Your task to perform on an android device: uninstall "Chime – Mobile Banking" Image 0: 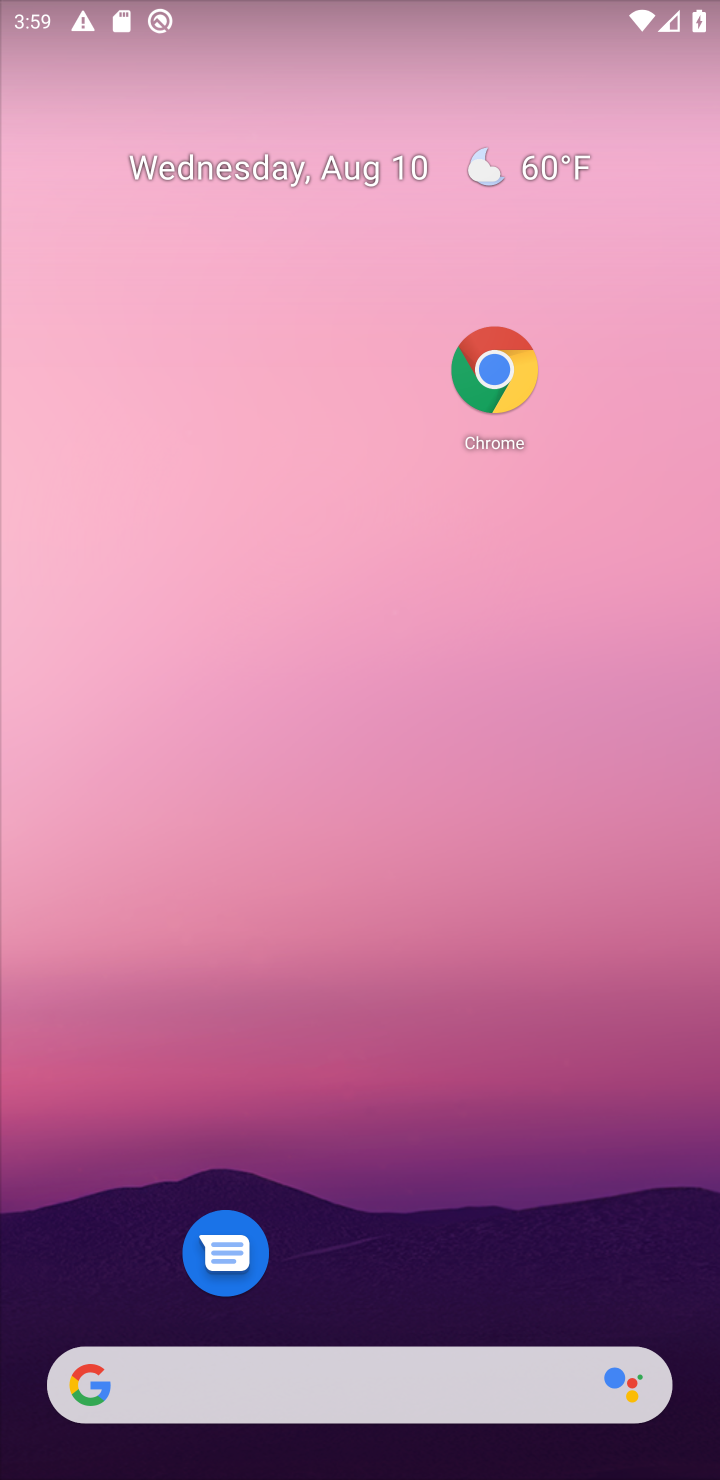
Step 0: drag from (338, 1304) to (396, 361)
Your task to perform on an android device: uninstall "Chime – Mobile Banking" Image 1: 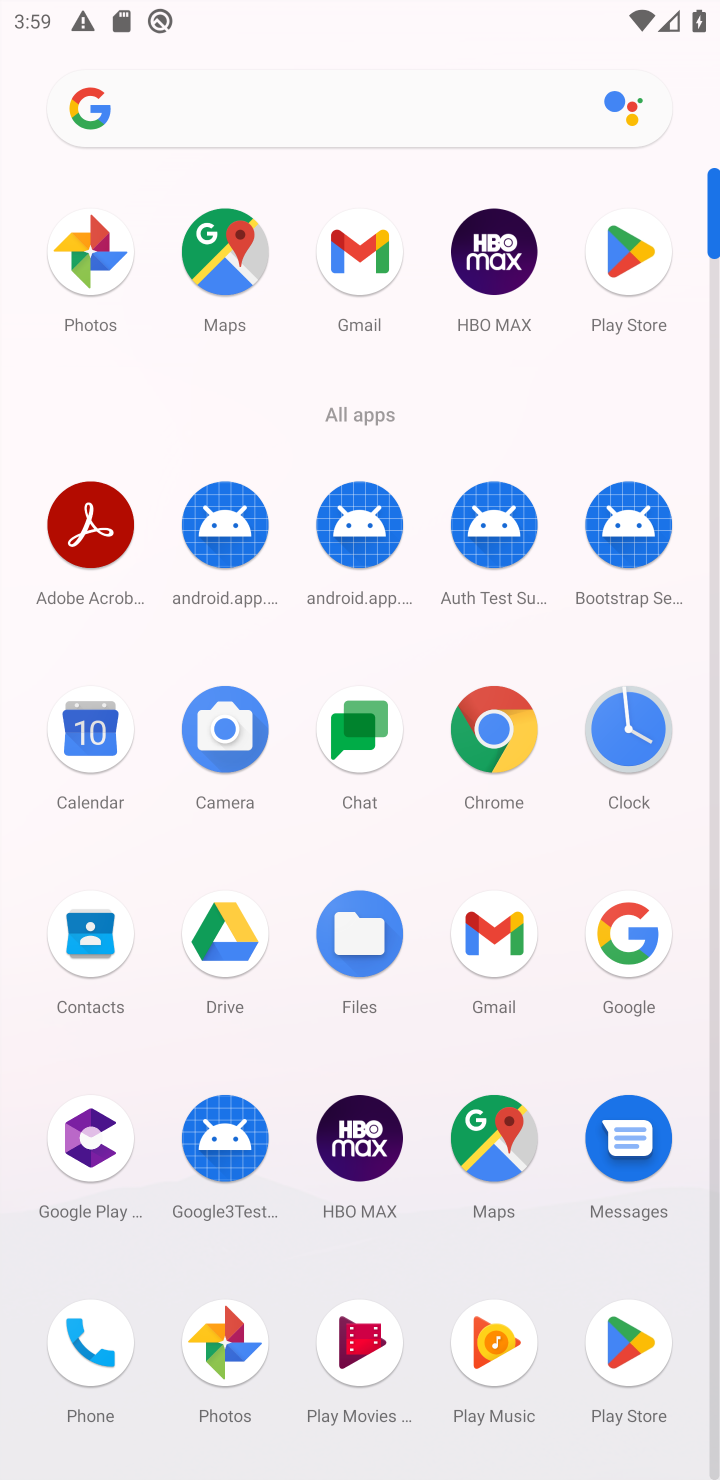
Step 1: click (635, 248)
Your task to perform on an android device: uninstall "Chime – Mobile Banking" Image 2: 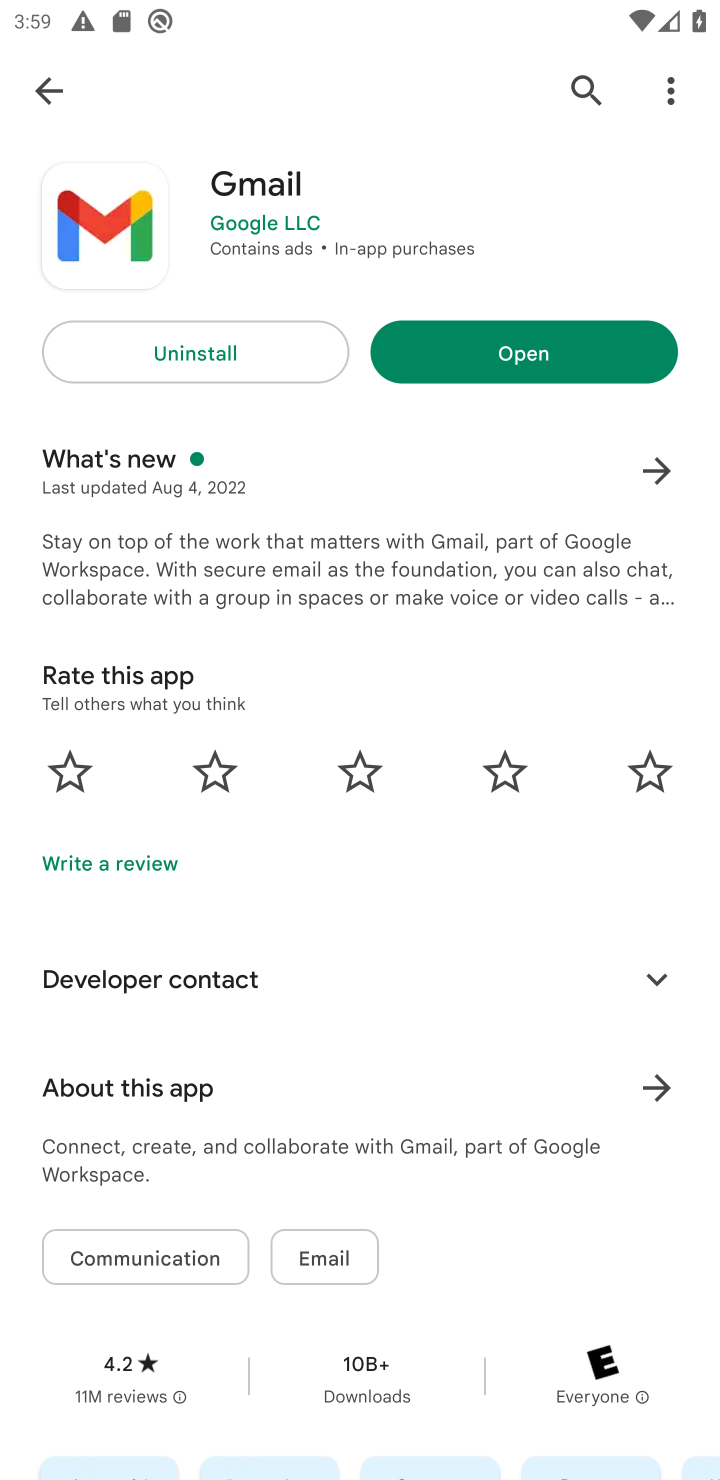
Step 2: click (49, 109)
Your task to perform on an android device: uninstall "Chime – Mobile Banking" Image 3: 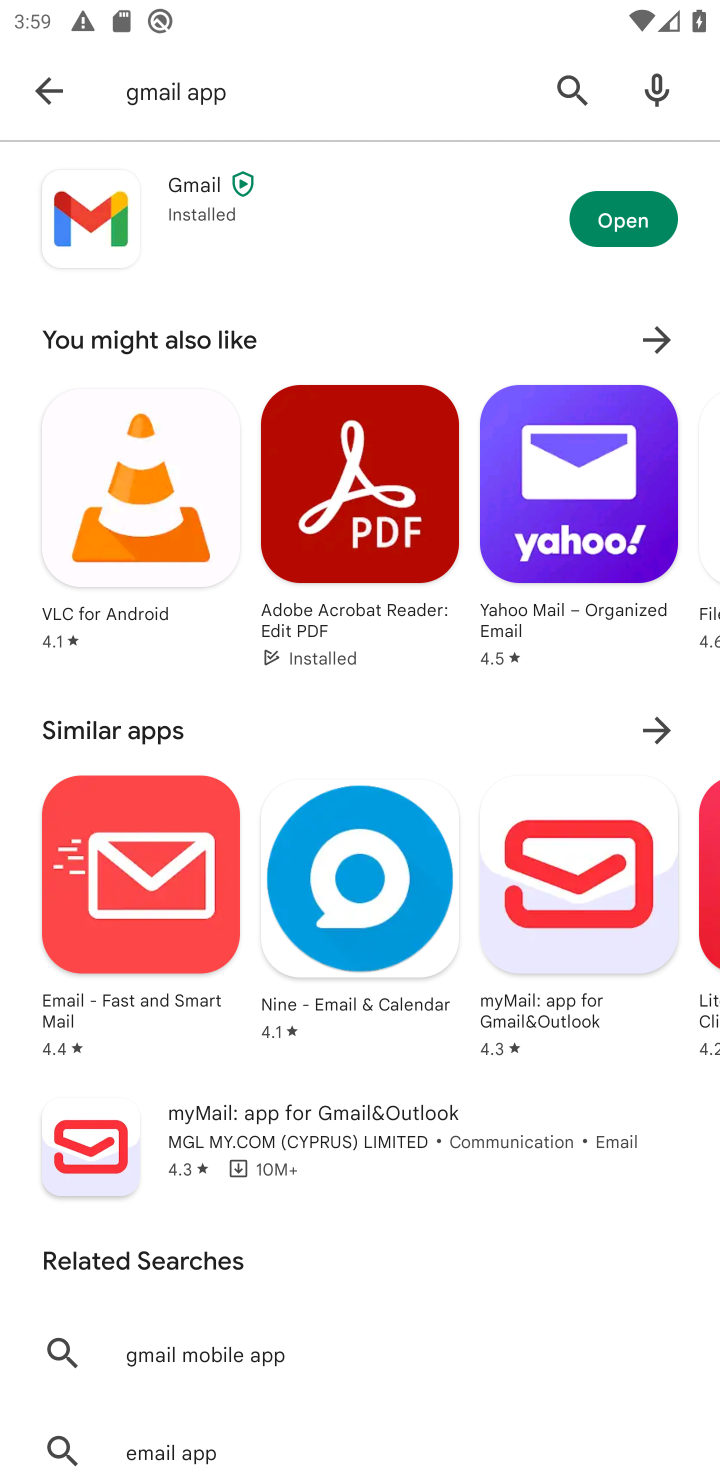
Step 3: click (41, 70)
Your task to perform on an android device: uninstall "Chime – Mobile Banking" Image 4: 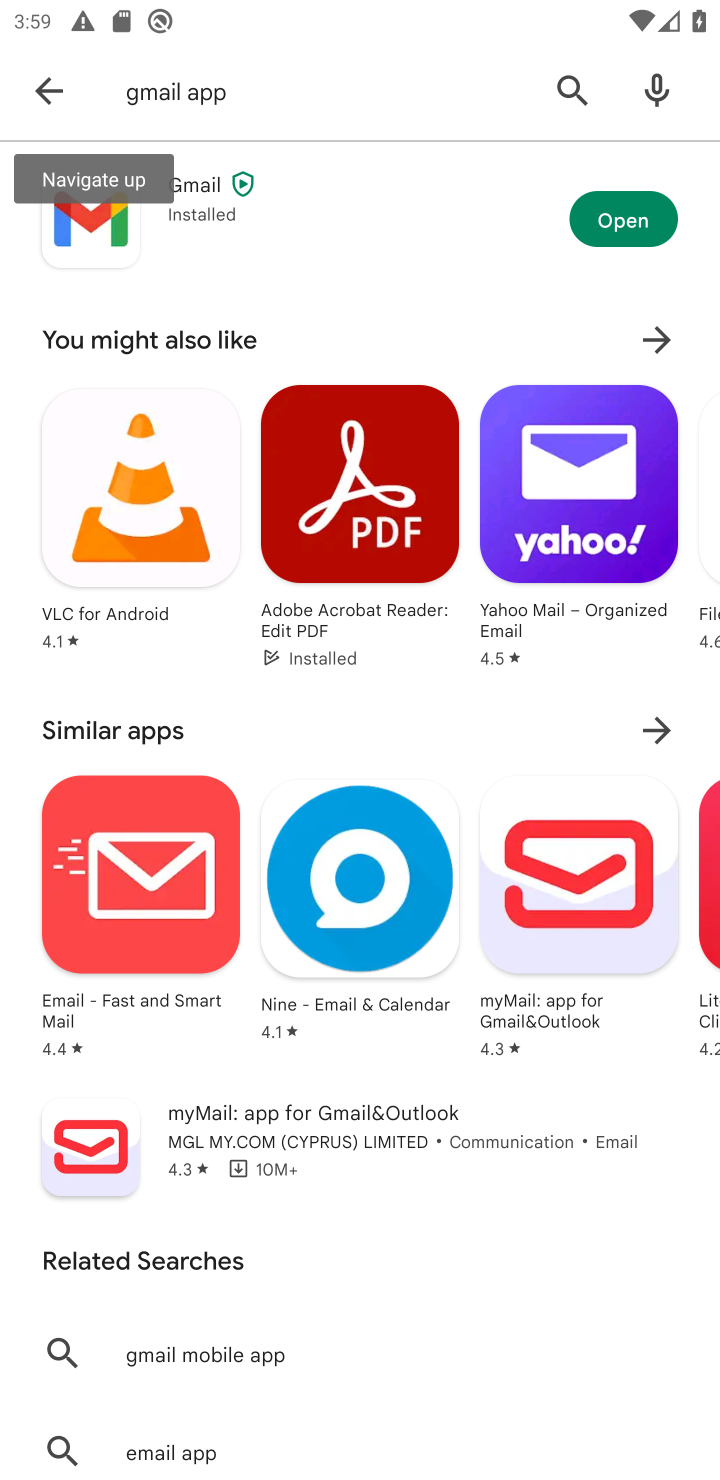
Step 4: click (325, 91)
Your task to perform on an android device: uninstall "Chime – Mobile Banking" Image 5: 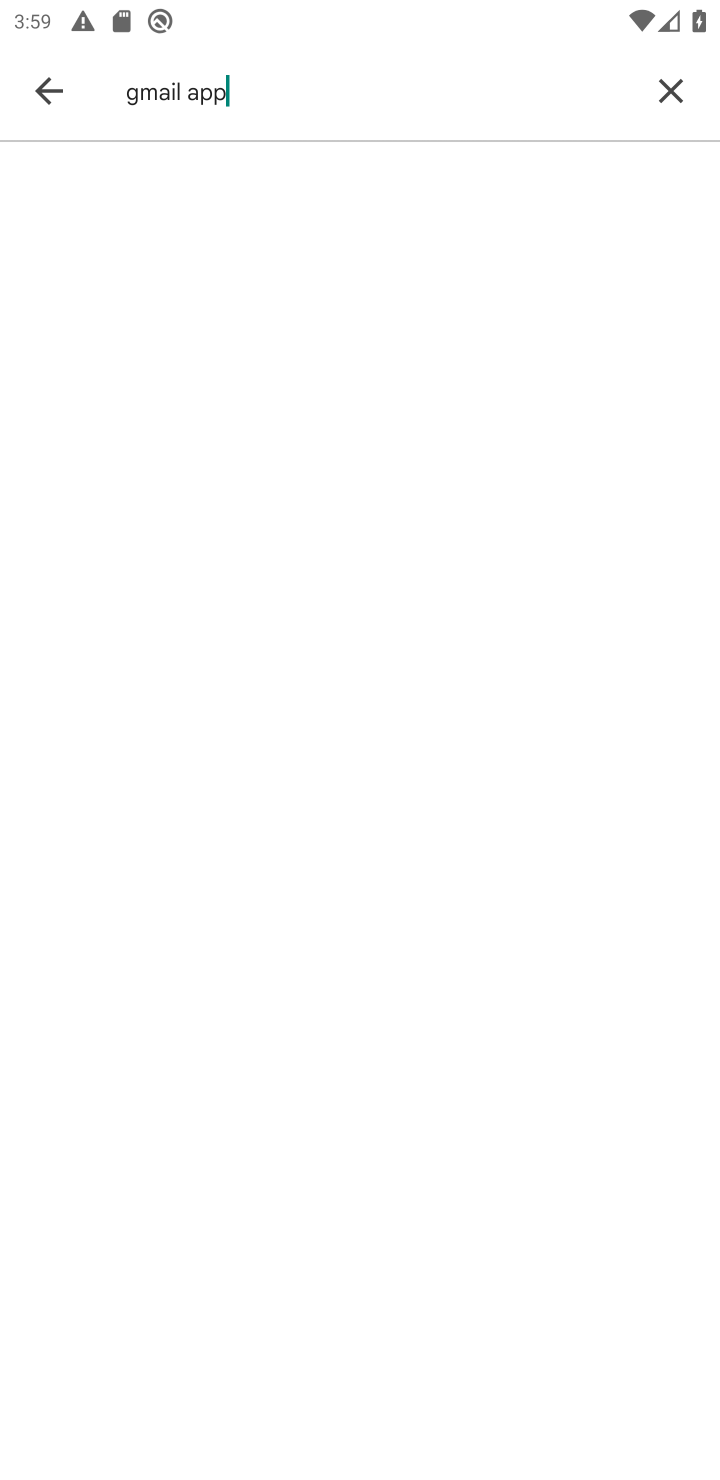
Step 5: click (578, 91)
Your task to perform on an android device: uninstall "Chime – Mobile Banking" Image 6: 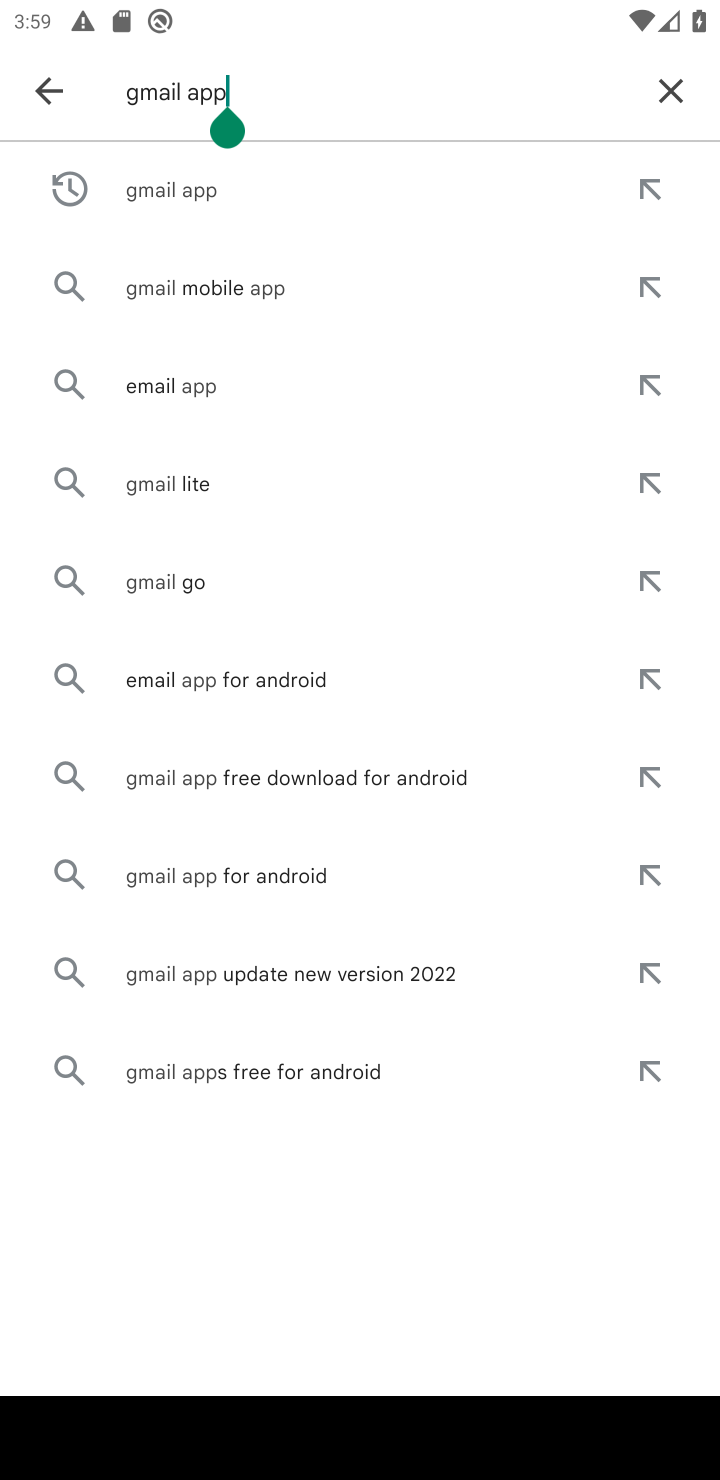
Step 6: click (662, 88)
Your task to perform on an android device: uninstall "Chime – Mobile Banking" Image 7: 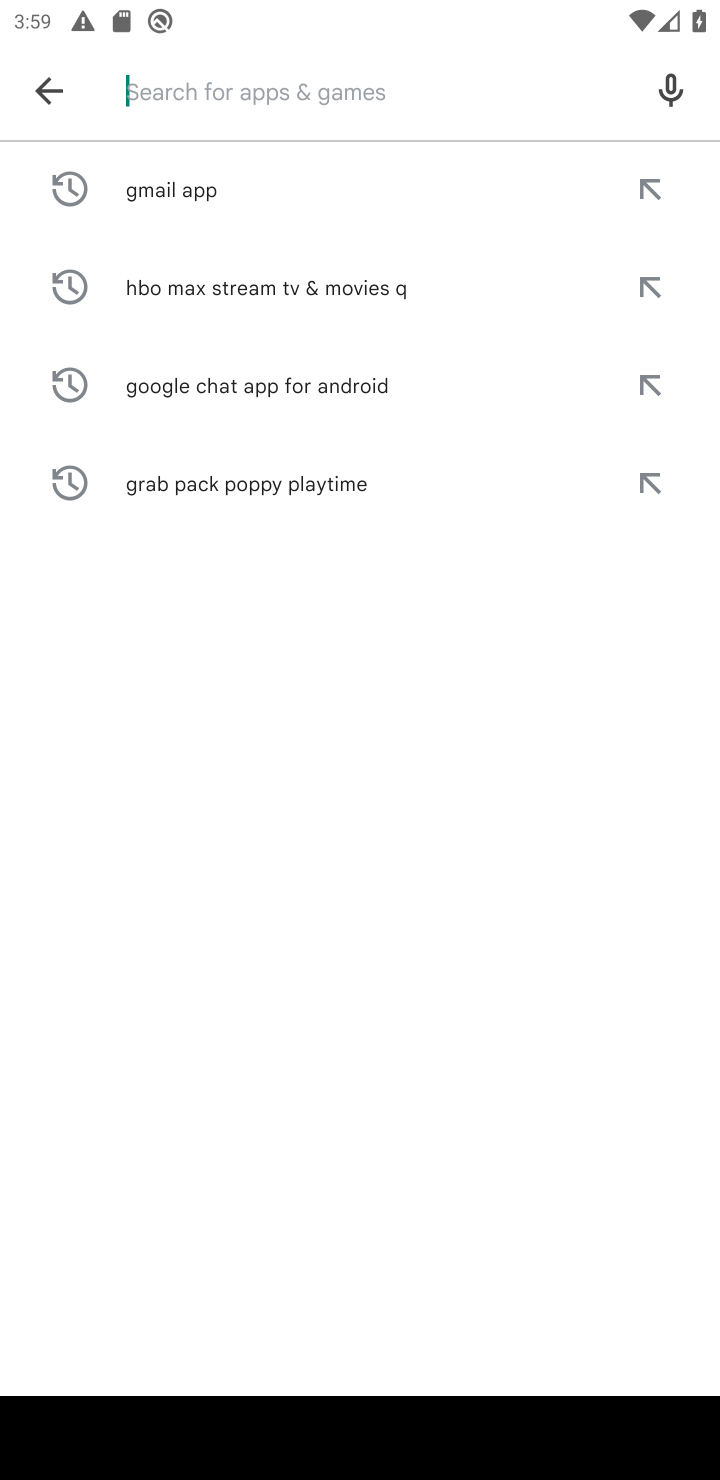
Step 7: click (339, 101)
Your task to perform on an android device: uninstall "Chime – Mobile Banking" Image 8: 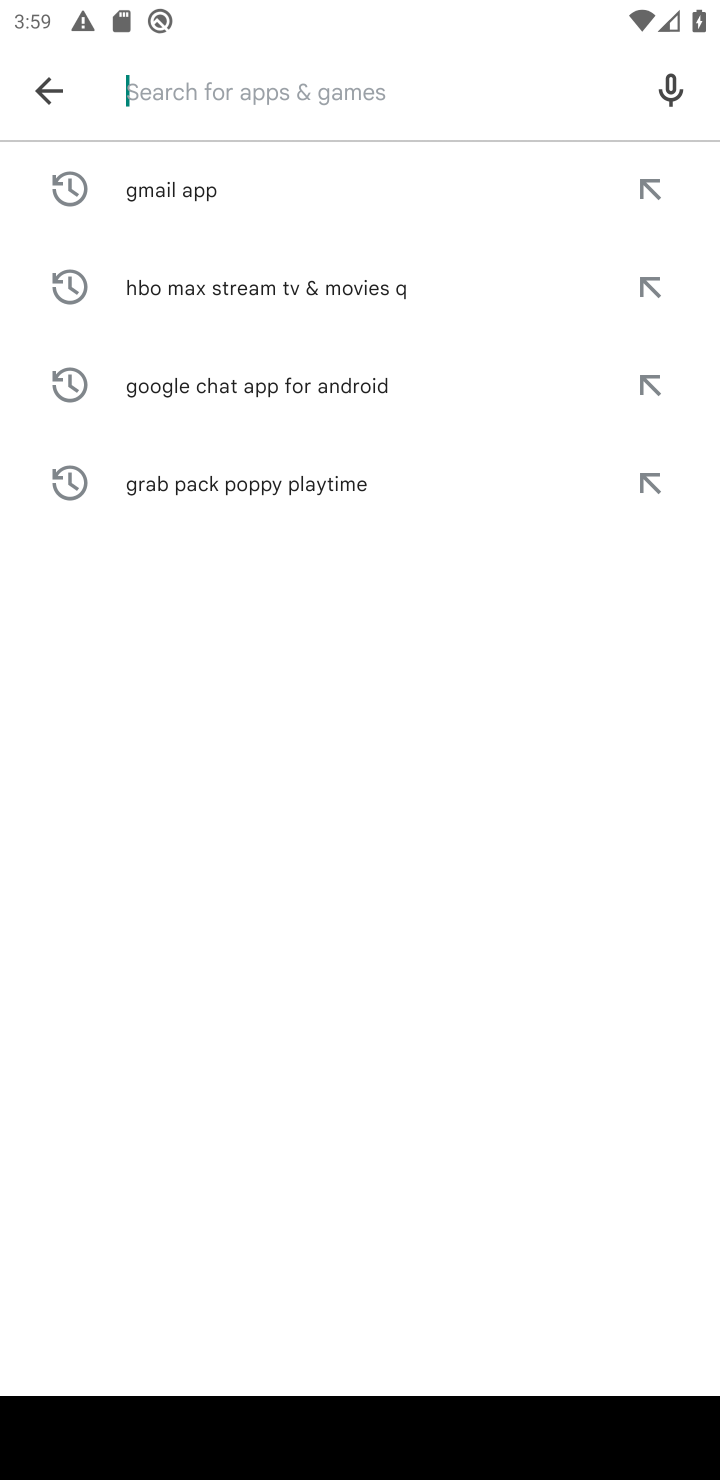
Step 8: click (394, 97)
Your task to perform on an android device: uninstall "Chime – Mobile Banking" Image 9: 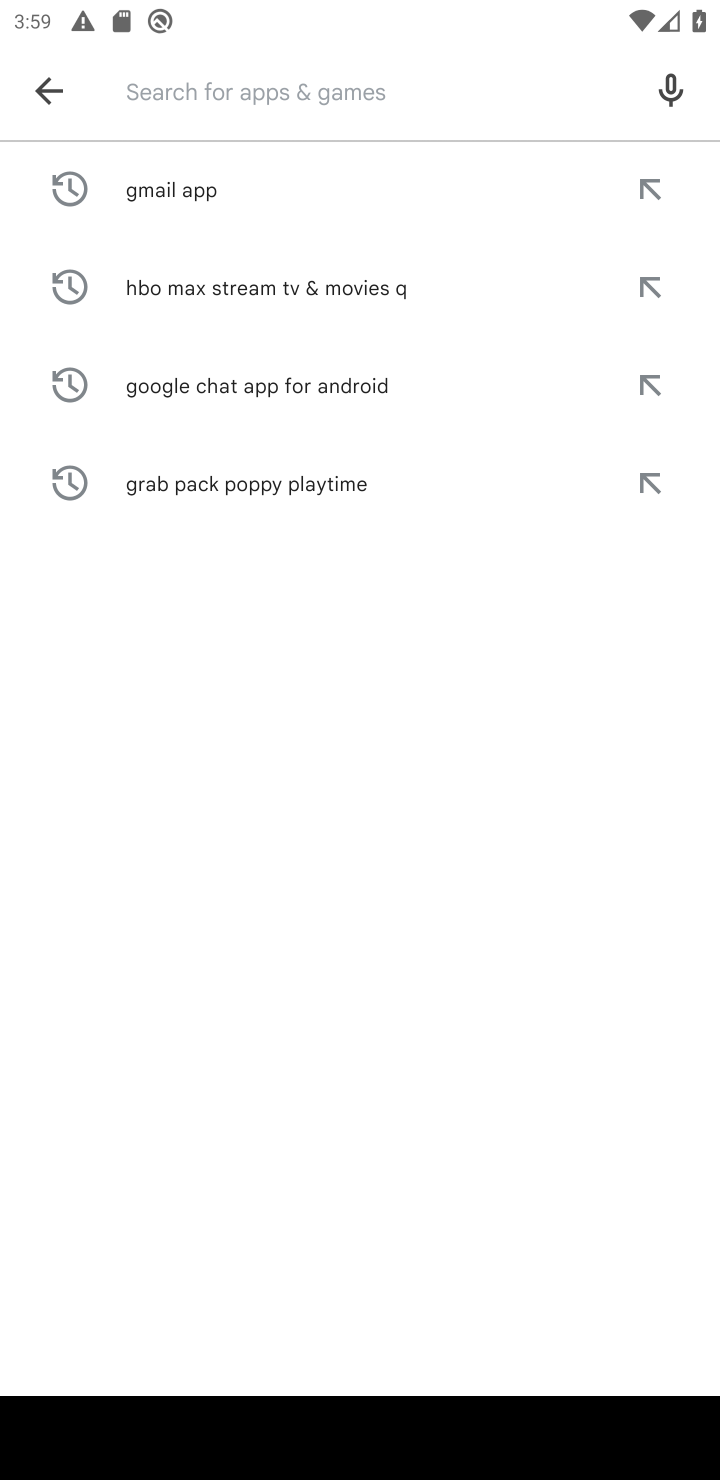
Step 9: type "chime "
Your task to perform on an android device: uninstall "Chime – Mobile Banking" Image 10: 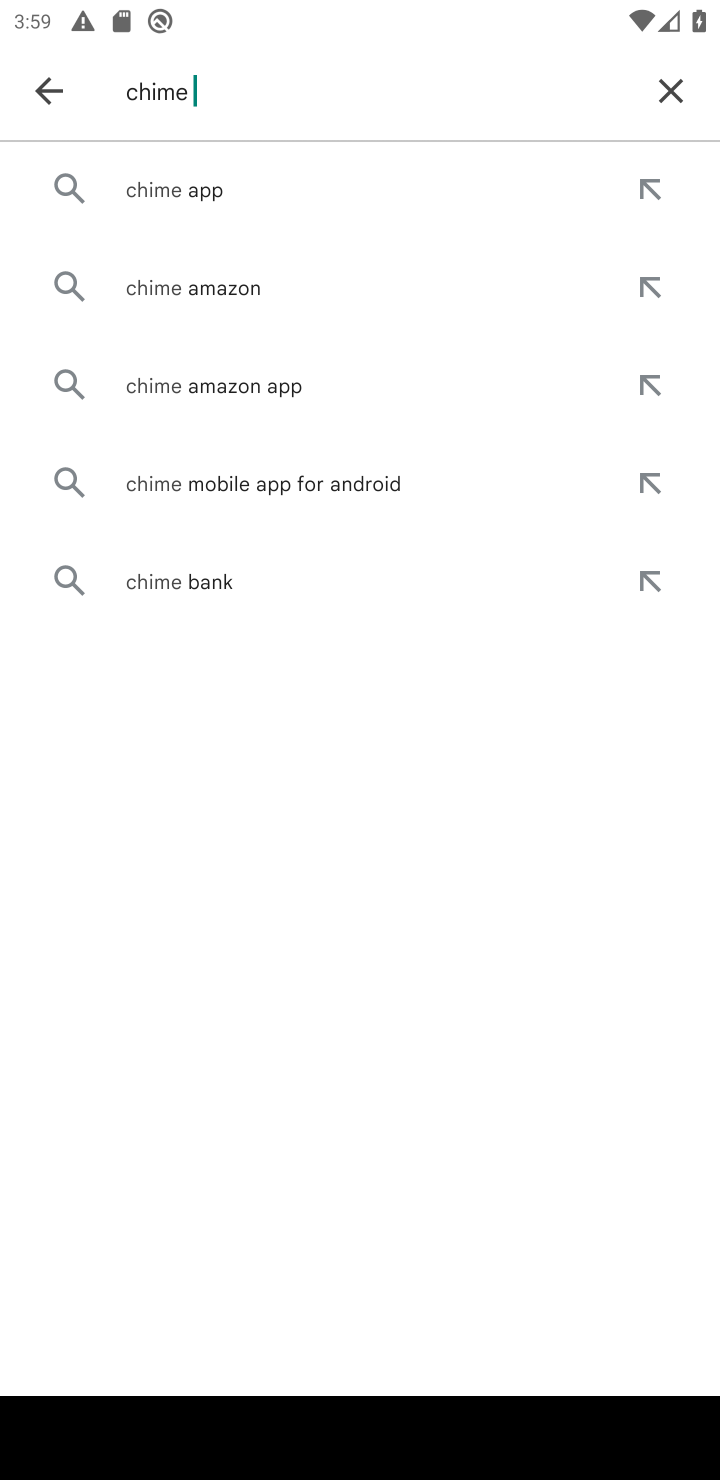
Step 10: click (212, 164)
Your task to perform on an android device: uninstall "Chime – Mobile Banking" Image 11: 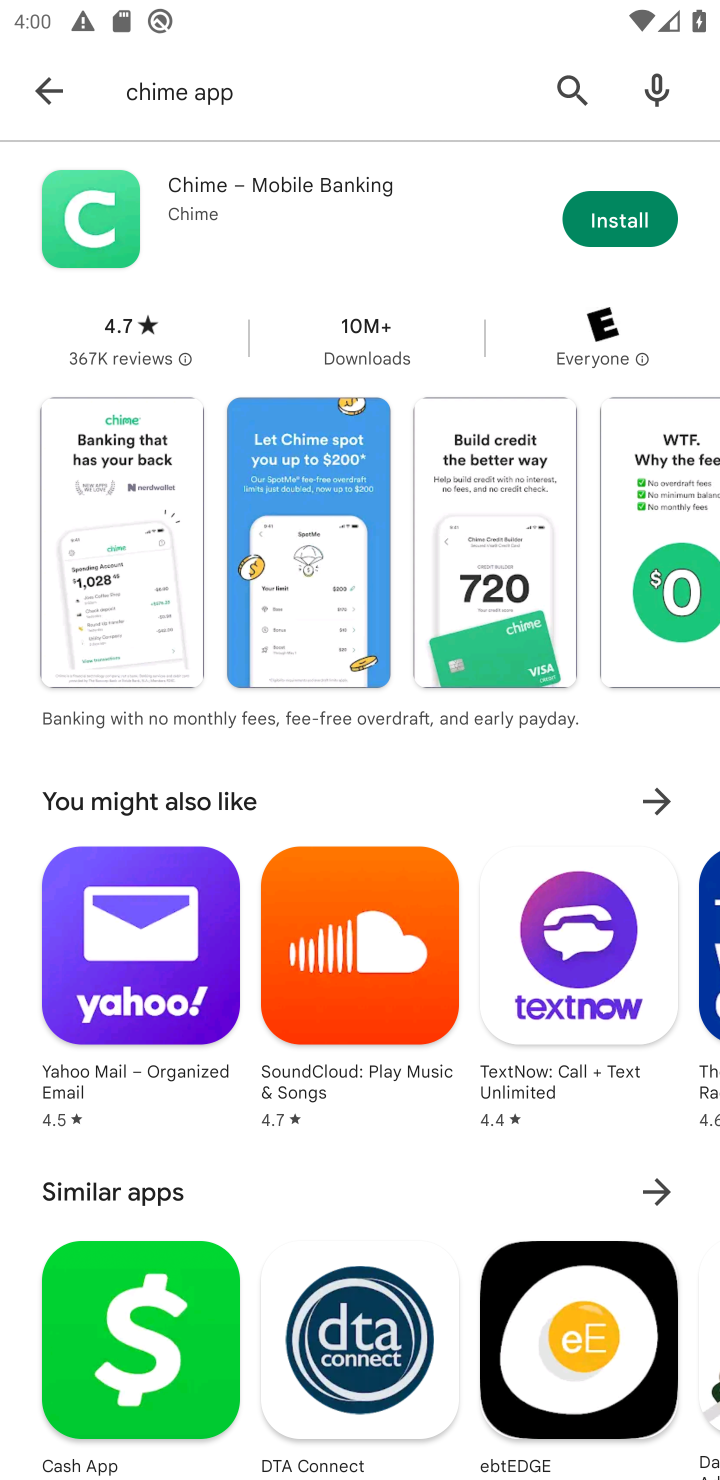
Step 11: click (601, 203)
Your task to perform on an android device: uninstall "Chime – Mobile Banking" Image 12: 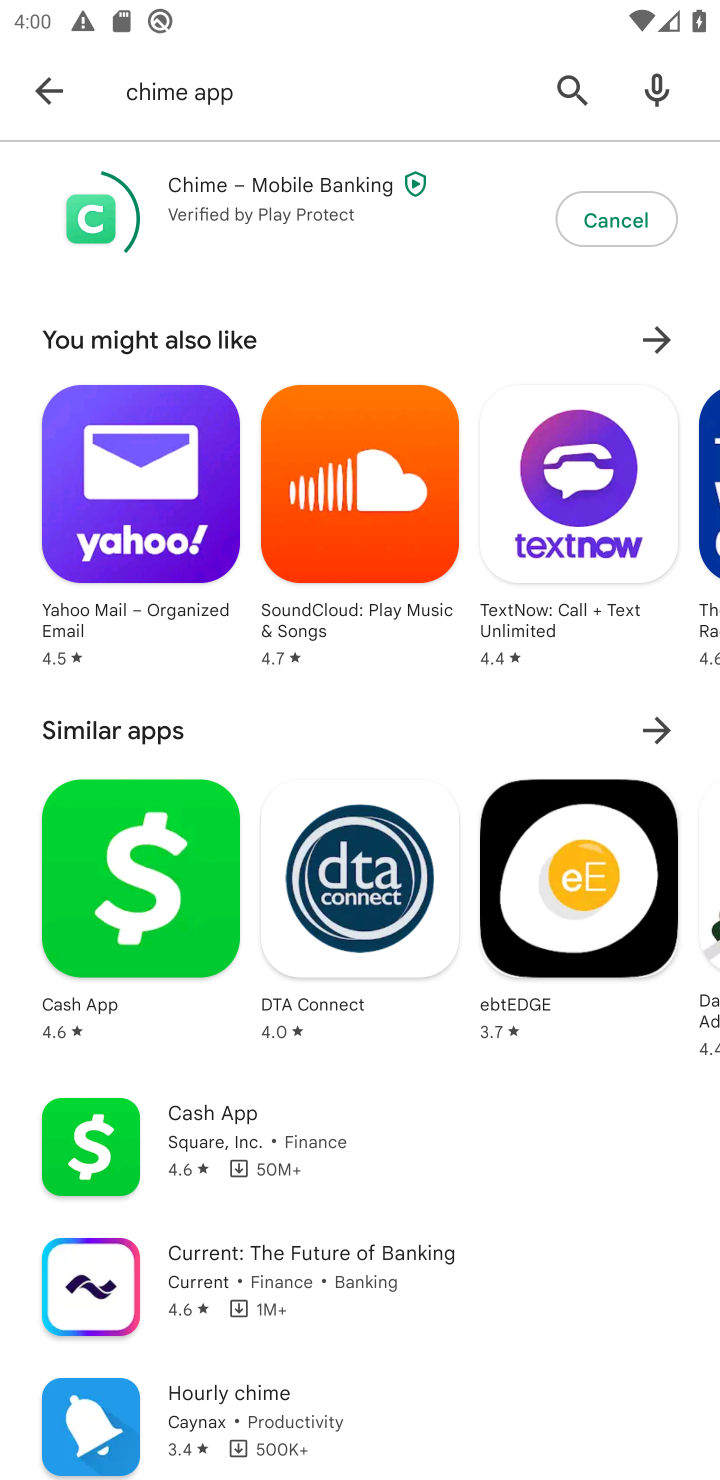
Step 12: click (598, 232)
Your task to perform on an android device: uninstall "Chime – Mobile Banking" Image 13: 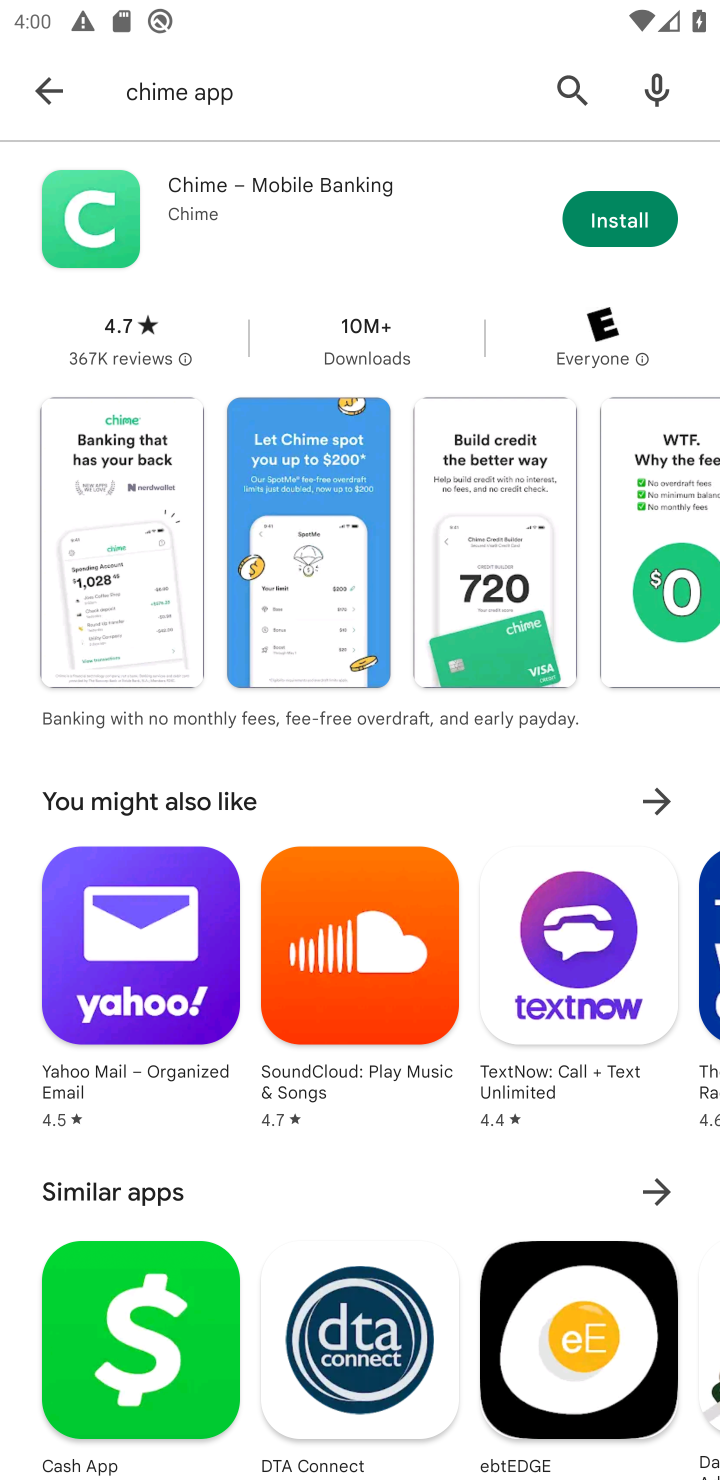
Step 13: click (229, 221)
Your task to perform on an android device: uninstall "Chime – Mobile Banking" Image 14: 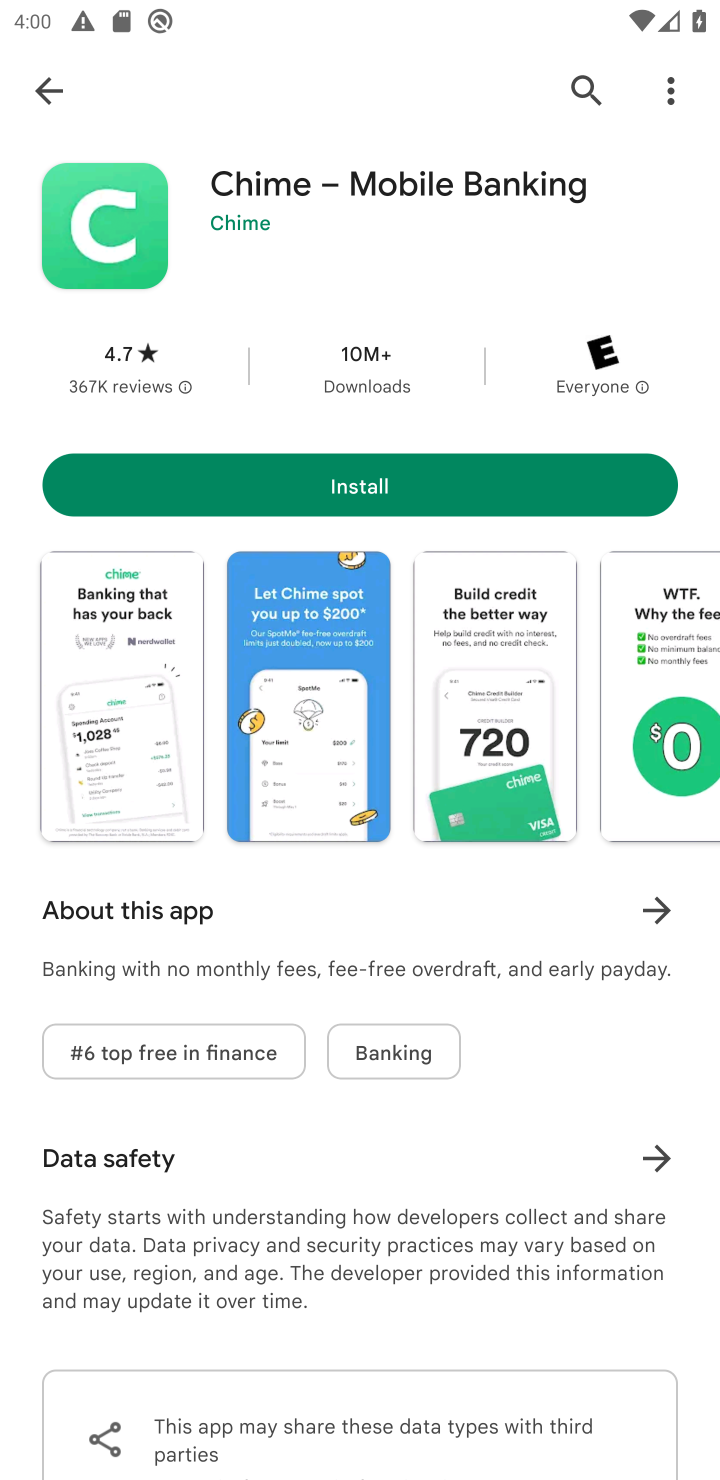
Step 14: task complete